Your task to perform on an android device: snooze an email in the gmail app Image 0: 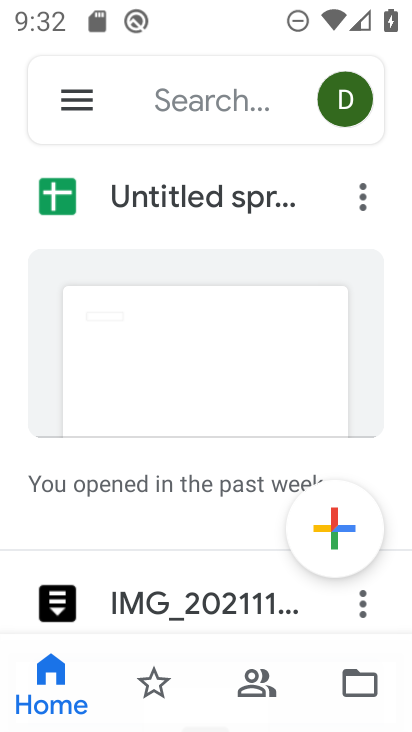
Step 0: press home button
Your task to perform on an android device: snooze an email in the gmail app Image 1: 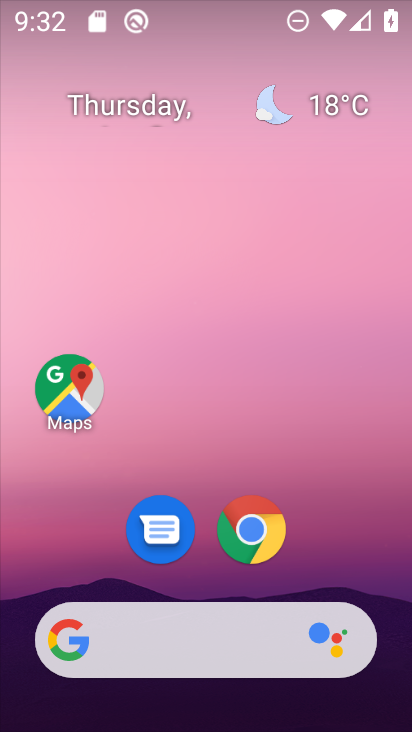
Step 1: drag from (387, 708) to (352, 152)
Your task to perform on an android device: snooze an email in the gmail app Image 2: 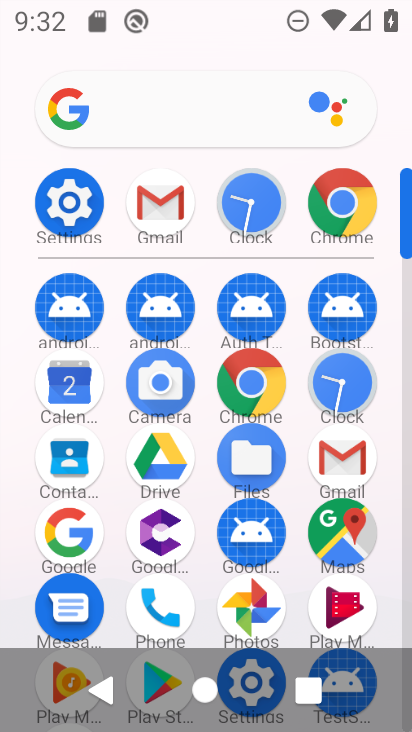
Step 2: click (343, 445)
Your task to perform on an android device: snooze an email in the gmail app Image 3: 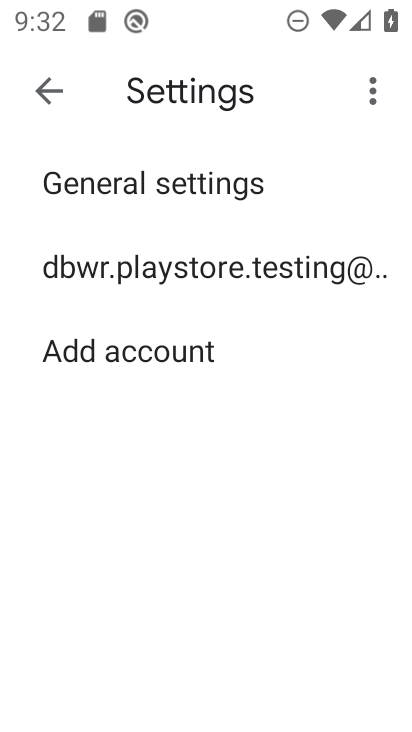
Step 3: click (31, 98)
Your task to perform on an android device: snooze an email in the gmail app Image 4: 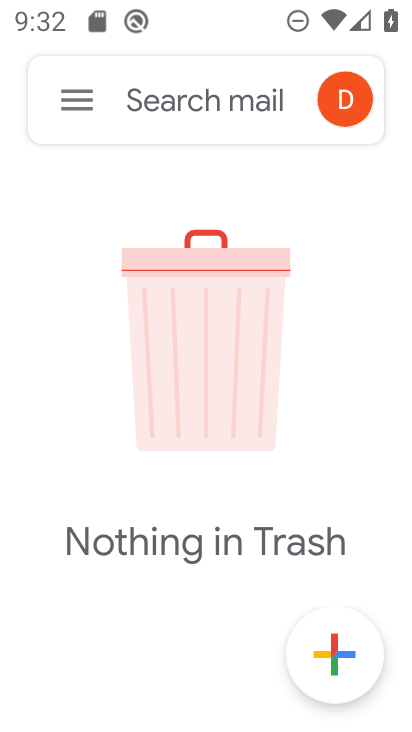
Step 4: click (72, 98)
Your task to perform on an android device: snooze an email in the gmail app Image 5: 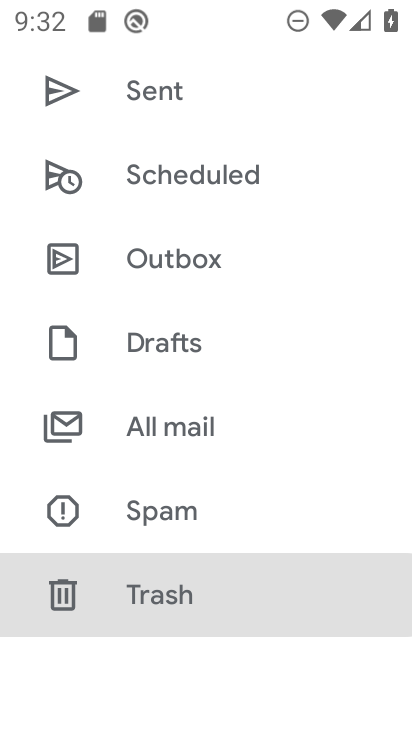
Step 5: drag from (265, 140) to (309, 703)
Your task to perform on an android device: snooze an email in the gmail app Image 6: 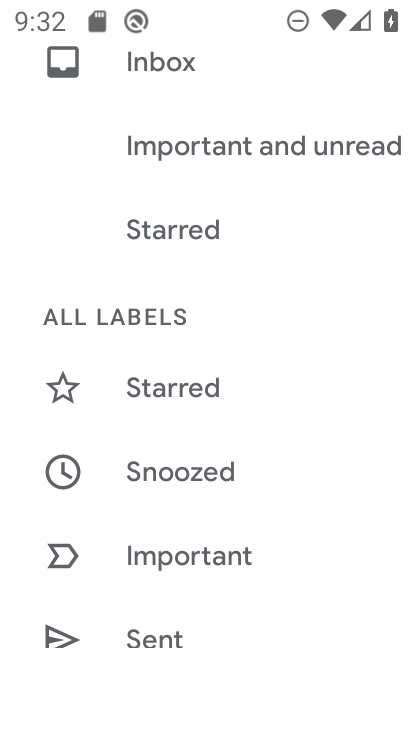
Step 6: click (152, 63)
Your task to perform on an android device: snooze an email in the gmail app Image 7: 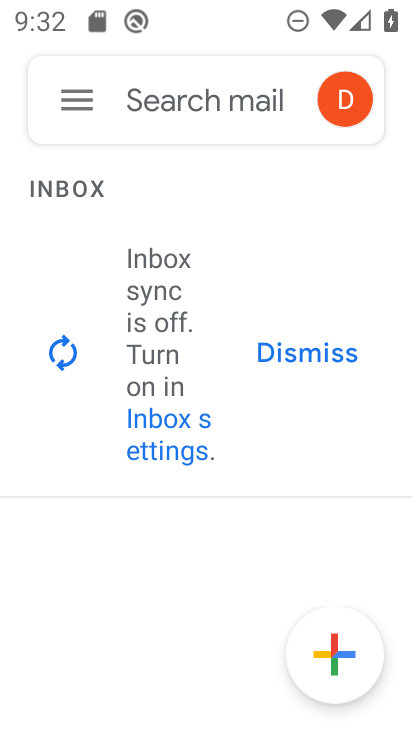
Step 7: task complete